Your task to perform on an android device: Show me popular games on the Play Store Image 0: 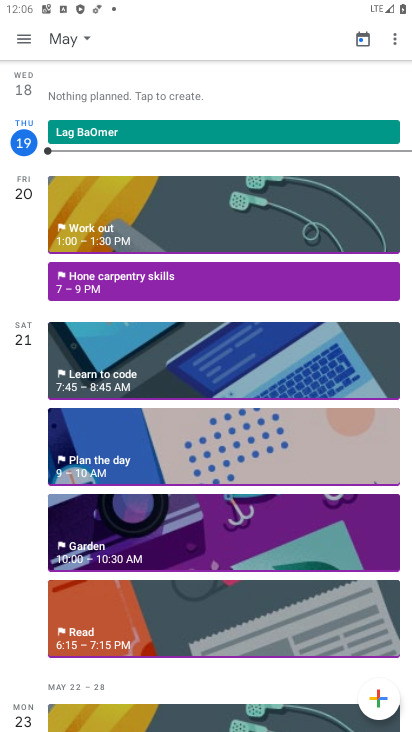
Step 0: press home button
Your task to perform on an android device: Show me popular games on the Play Store Image 1: 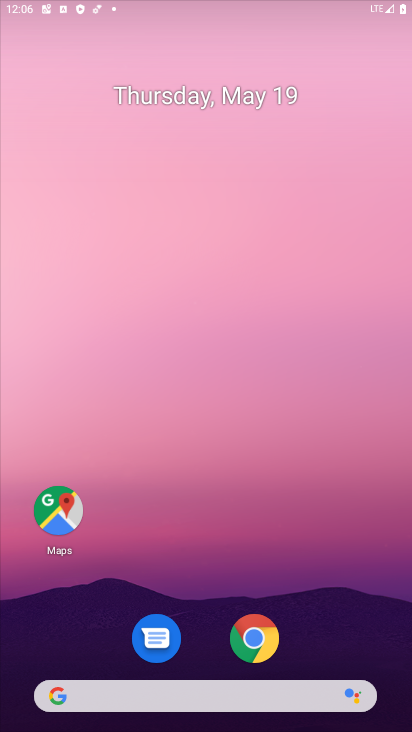
Step 1: drag from (371, 624) to (242, 51)
Your task to perform on an android device: Show me popular games on the Play Store Image 2: 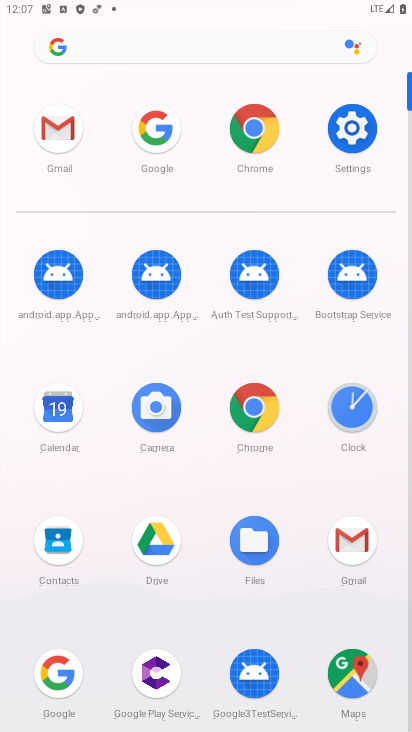
Step 2: drag from (107, 681) to (134, 160)
Your task to perform on an android device: Show me popular games on the Play Store Image 3: 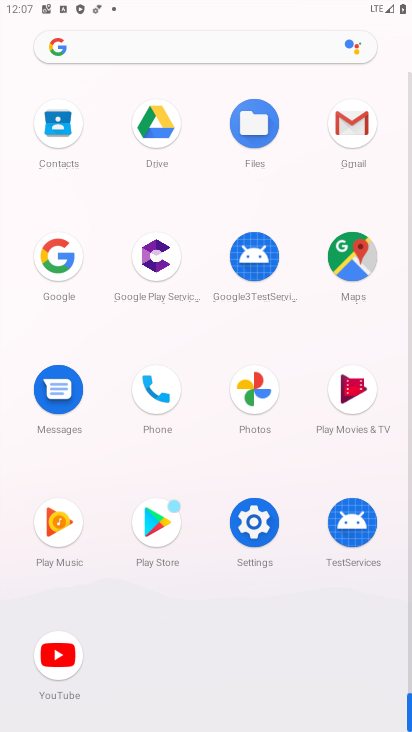
Step 3: click (158, 554)
Your task to perform on an android device: Show me popular games on the Play Store Image 4: 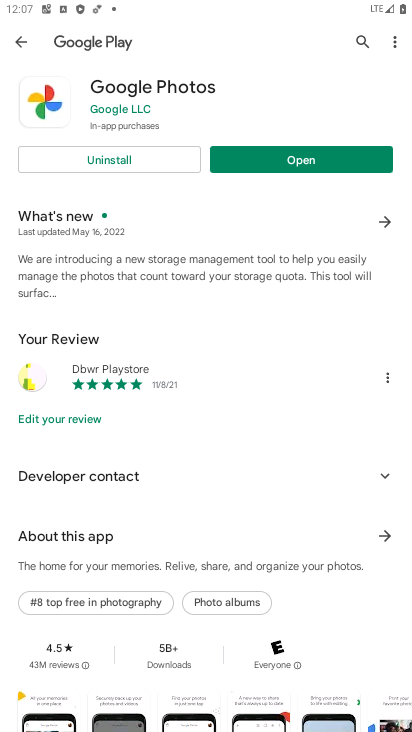
Step 4: task complete